Your task to perform on an android device: Open the calendar app, open the side menu, and click the "Day" option Image 0: 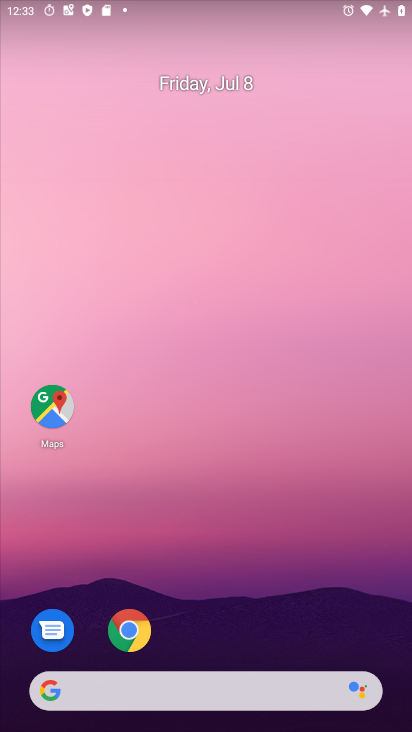
Step 0: drag from (216, 641) to (219, 241)
Your task to perform on an android device: Open the calendar app, open the side menu, and click the "Day" option Image 1: 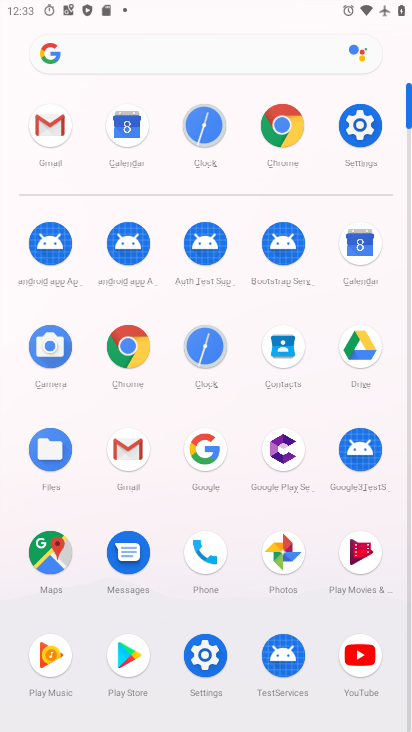
Step 1: click (349, 260)
Your task to perform on an android device: Open the calendar app, open the side menu, and click the "Day" option Image 2: 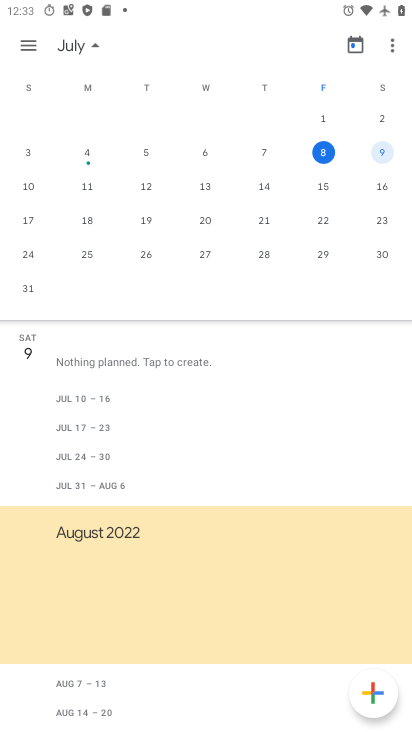
Step 2: click (27, 55)
Your task to perform on an android device: Open the calendar app, open the side menu, and click the "Day" option Image 3: 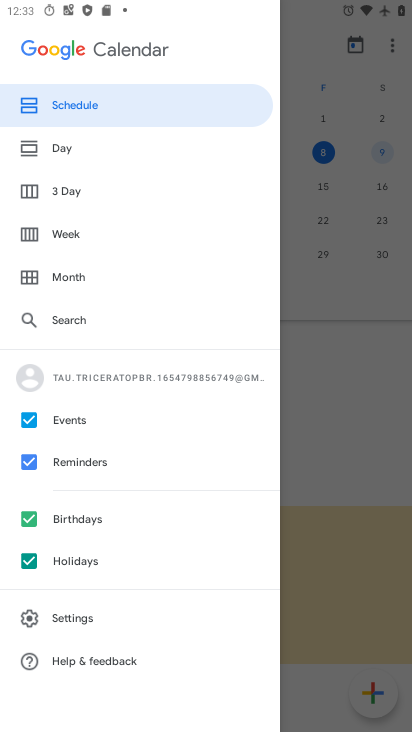
Step 3: click (110, 168)
Your task to perform on an android device: Open the calendar app, open the side menu, and click the "Day" option Image 4: 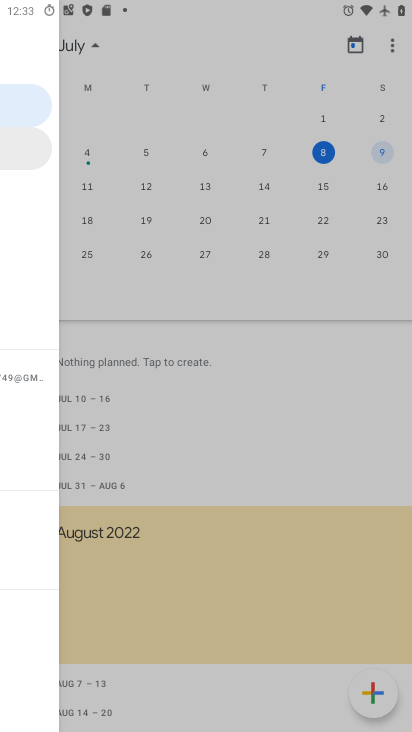
Step 4: click (101, 155)
Your task to perform on an android device: Open the calendar app, open the side menu, and click the "Day" option Image 5: 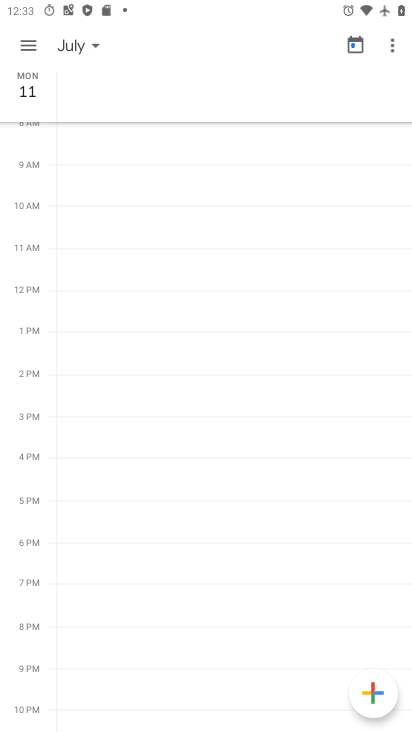
Step 5: task complete